Your task to perform on an android device: Do I have any events today? Image 0: 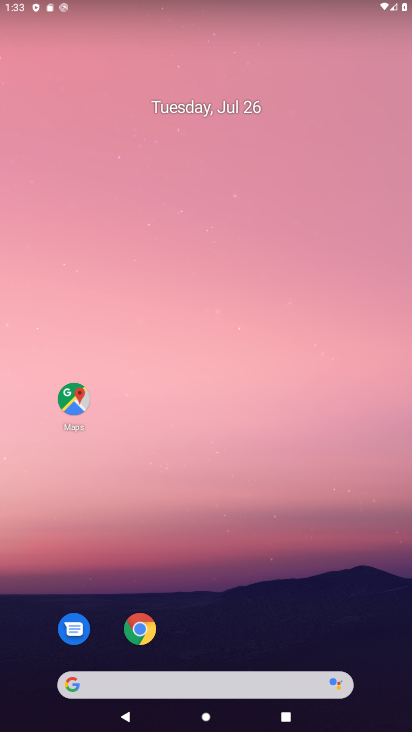
Step 0: drag from (384, 649) to (329, 136)
Your task to perform on an android device: Do I have any events today? Image 1: 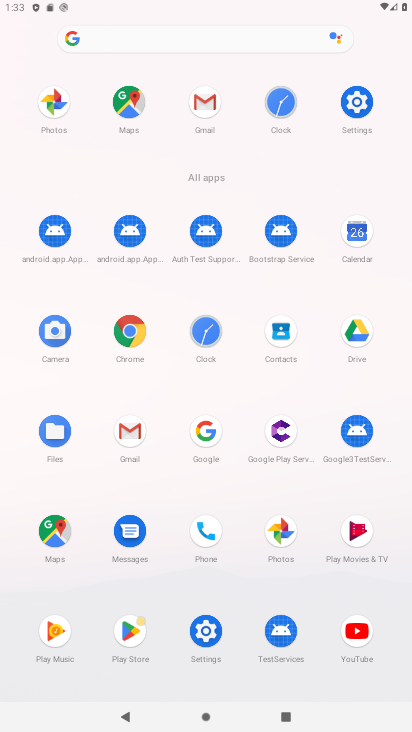
Step 1: click (354, 232)
Your task to perform on an android device: Do I have any events today? Image 2: 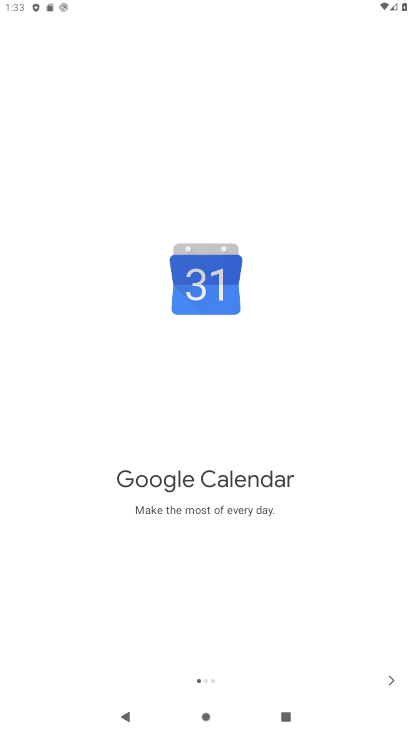
Step 2: click (388, 675)
Your task to perform on an android device: Do I have any events today? Image 3: 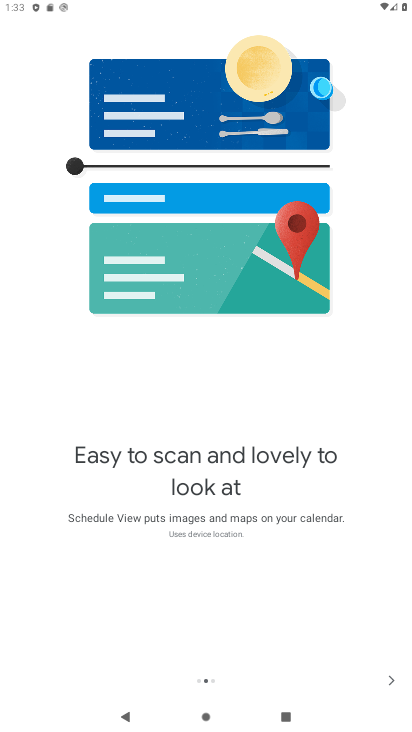
Step 3: click (388, 675)
Your task to perform on an android device: Do I have any events today? Image 4: 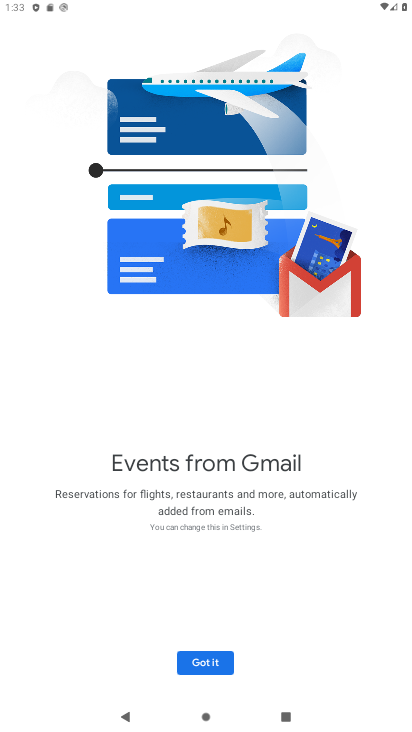
Step 4: click (208, 659)
Your task to perform on an android device: Do I have any events today? Image 5: 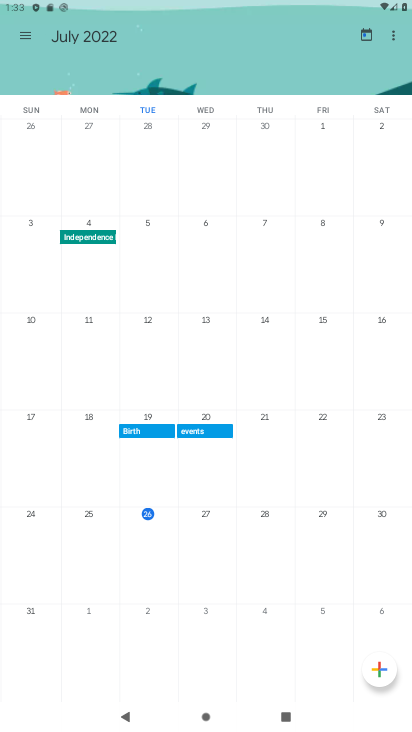
Step 5: click (25, 37)
Your task to perform on an android device: Do I have any events today? Image 6: 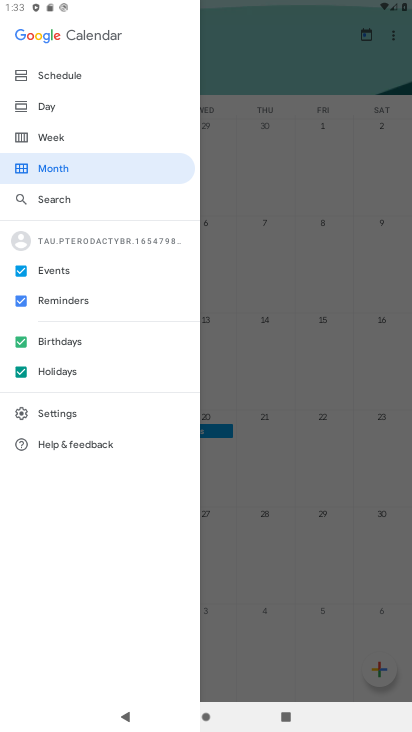
Step 6: click (50, 105)
Your task to perform on an android device: Do I have any events today? Image 7: 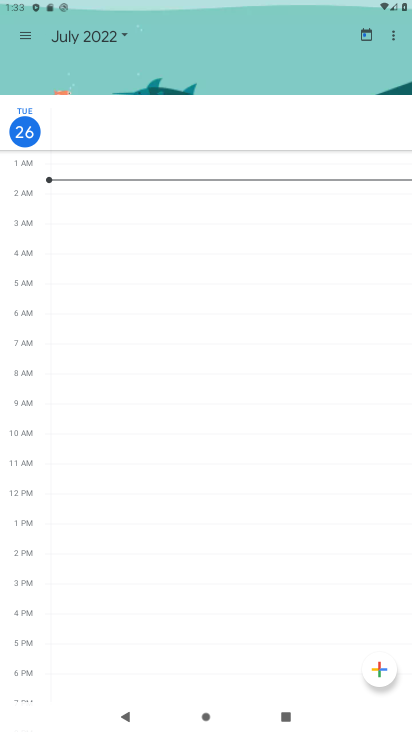
Step 7: click (128, 48)
Your task to perform on an android device: Do I have any events today? Image 8: 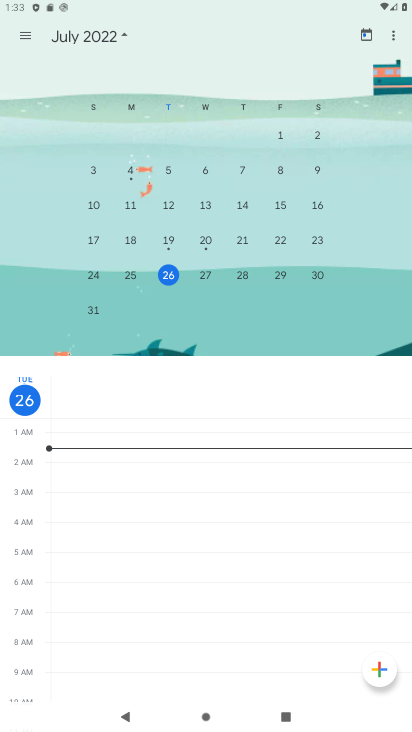
Step 8: click (167, 261)
Your task to perform on an android device: Do I have any events today? Image 9: 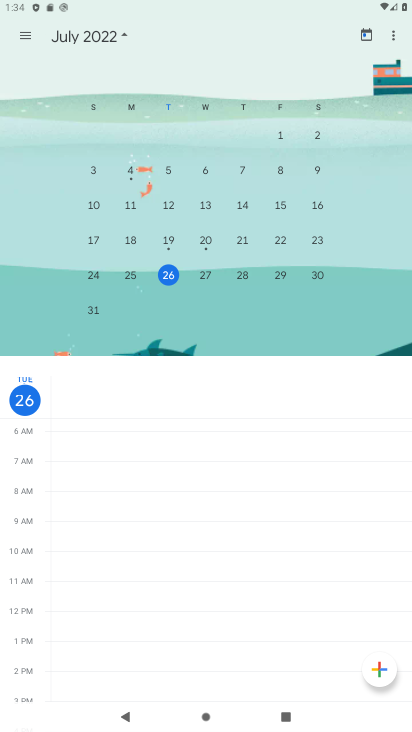
Step 9: task complete